Your task to perform on an android device: visit the assistant section in the google photos Image 0: 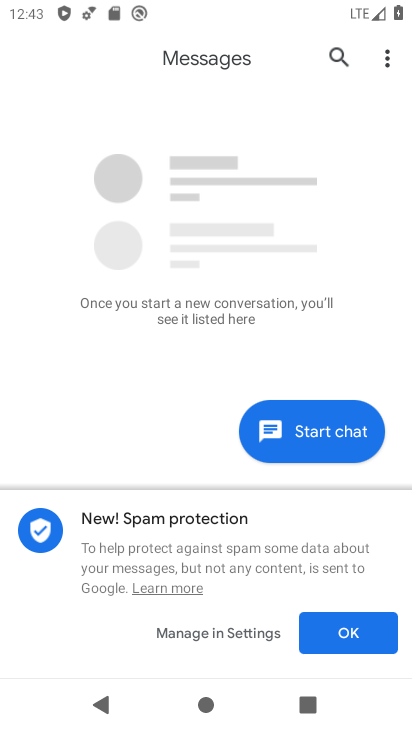
Step 0: press home button
Your task to perform on an android device: visit the assistant section in the google photos Image 1: 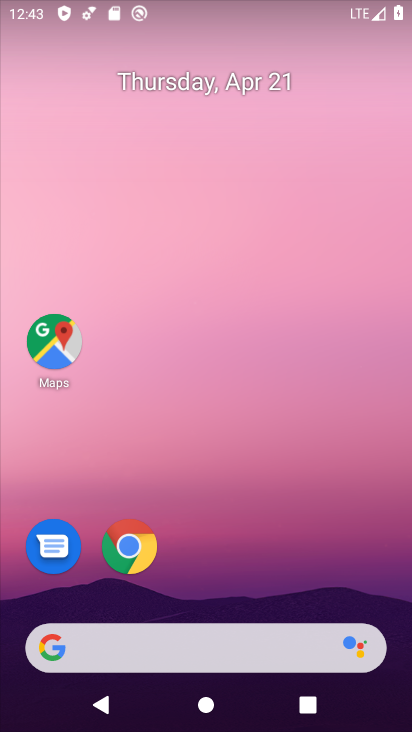
Step 1: drag from (237, 574) to (213, 140)
Your task to perform on an android device: visit the assistant section in the google photos Image 2: 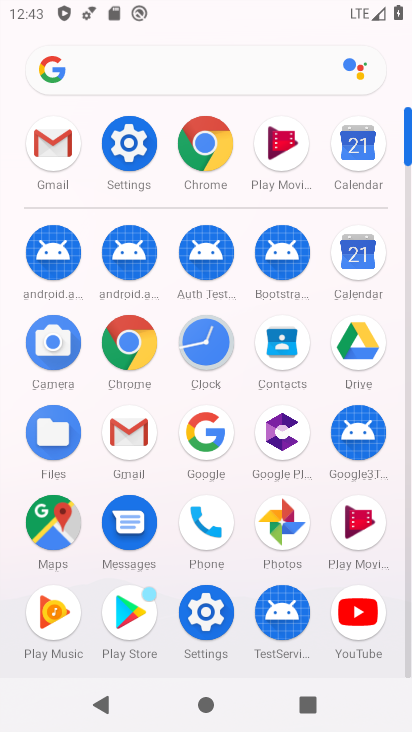
Step 2: click (290, 519)
Your task to perform on an android device: visit the assistant section in the google photos Image 3: 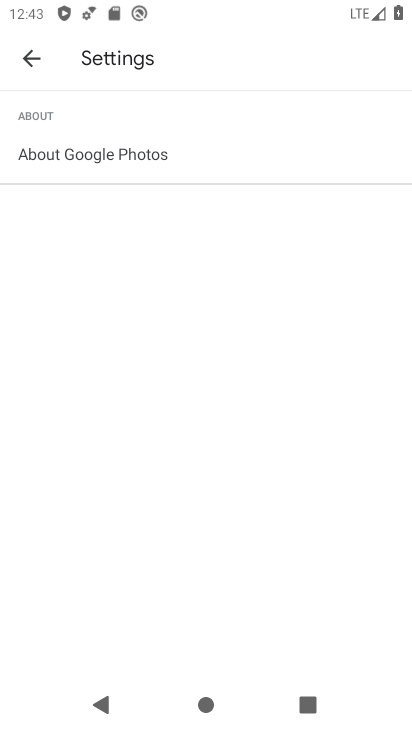
Step 3: press back button
Your task to perform on an android device: visit the assistant section in the google photos Image 4: 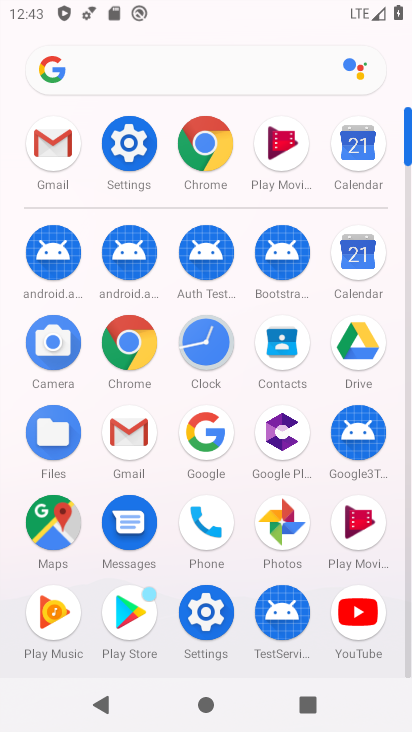
Step 4: click (278, 528)
Your task to perform on an android device: visit the assistant section in the google photos Image 5: 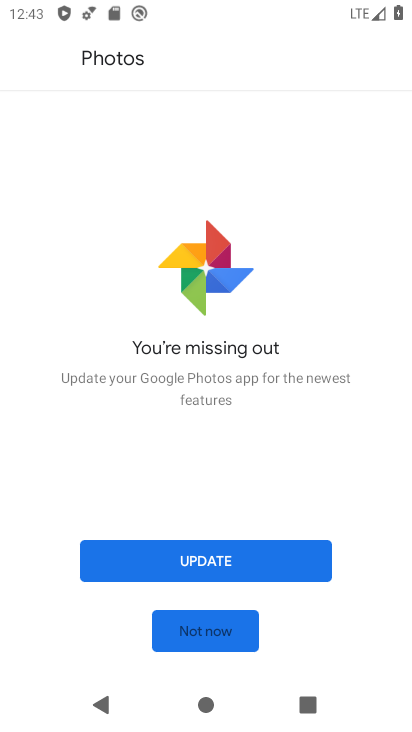
Step 5: click (269, 562)
Your task to perform on an android device: visit the assistant section in the google photos Image 6: 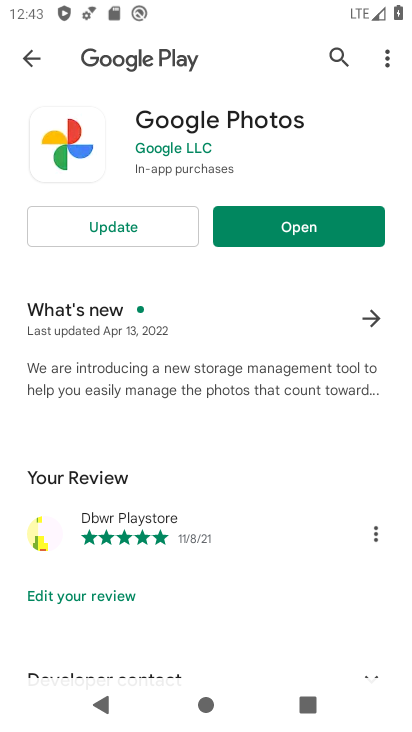
Step 6: click (123, 232)
Your task to perform on an android device: visit the assistant section in the google photos Image 7: 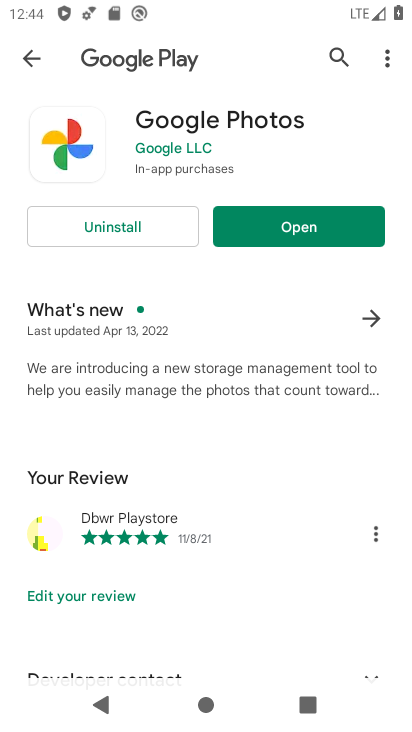
Step 7: click (285, 239)
Your task to perform on an android device: visit the assistant section in the google photos Image 8: 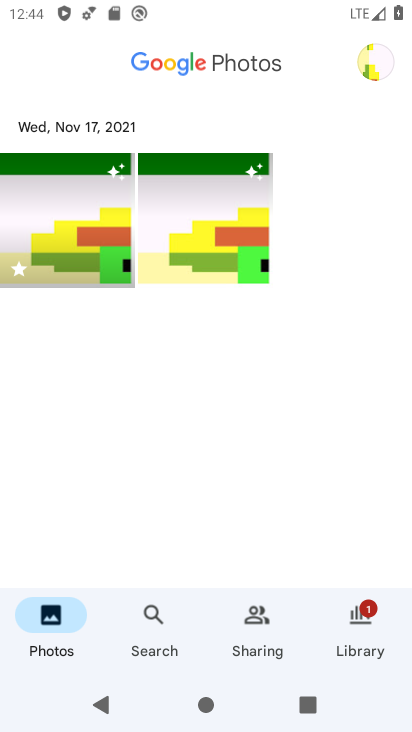
Step 8: click (362, 630)
Your task to perform on an android device: visit the assistant section in the google photos Image 9: 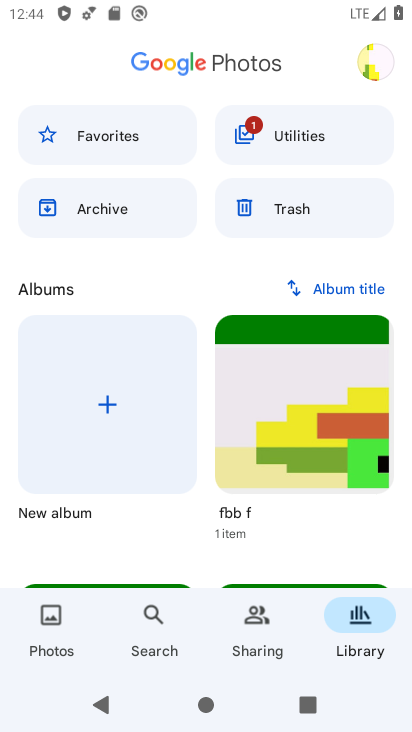
Step 9: task complete